Your task to perform on an android device: check storage Image 0: 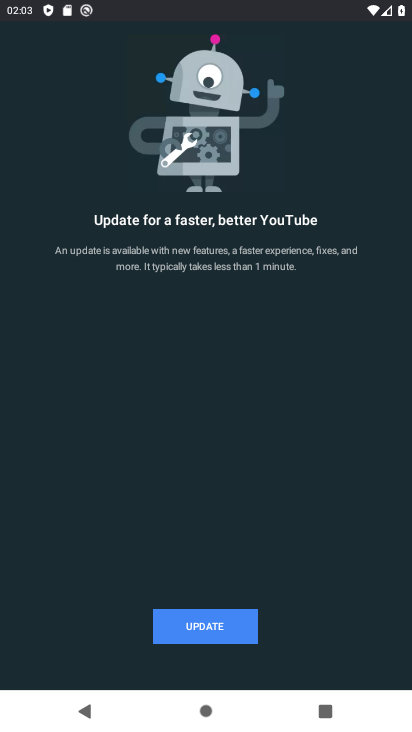
Step 0: press home button
Your task to perform on an android device: check storage Image 1: 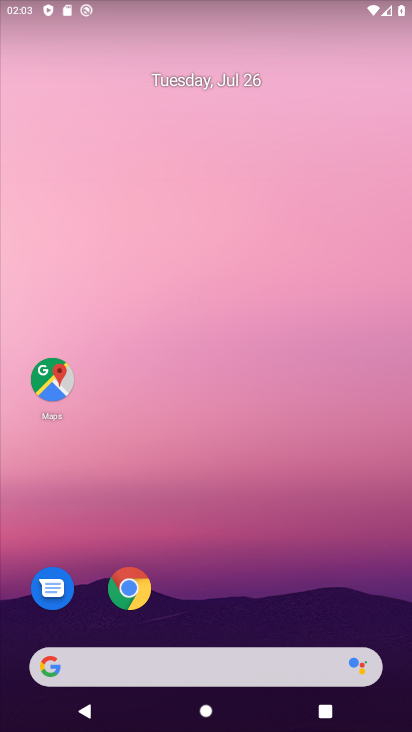
Step 1: drag from (256, 626) to (161, 176)
Your task to perform on an android device: check storage Image 2: 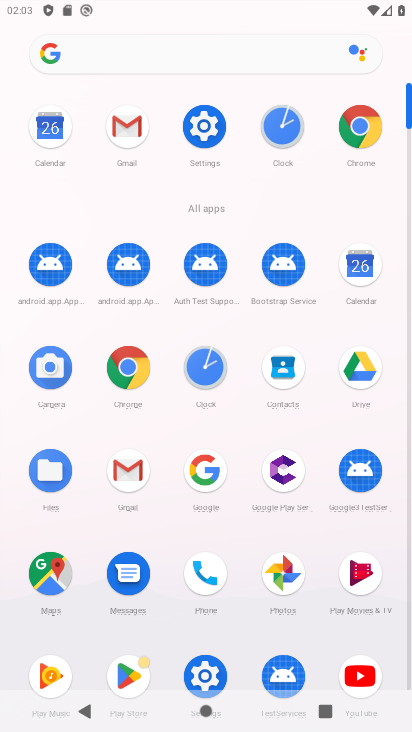
Step 2: click (200, 121)
Your task to perform on an android device: check storage Image 3: 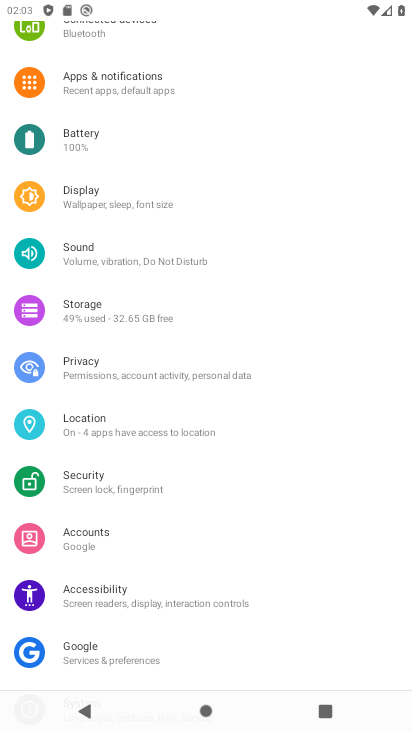
Step 3: click (118, 320)
Your task to perform on an android device: check storage Image 4: 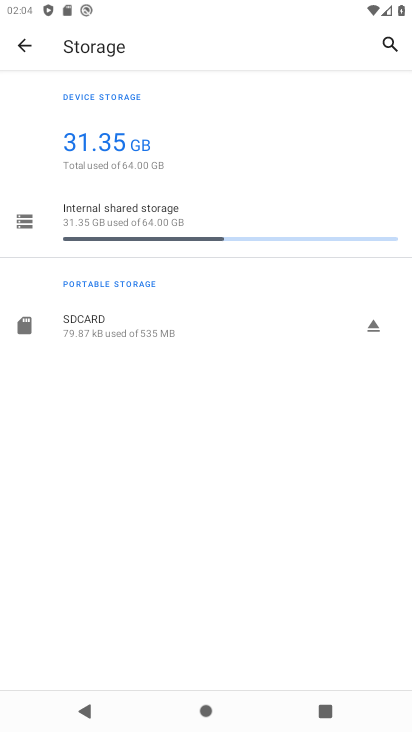
Step 4: task complete